Your task to perform on an android device: turn pop-ups off in chrome Image 0: 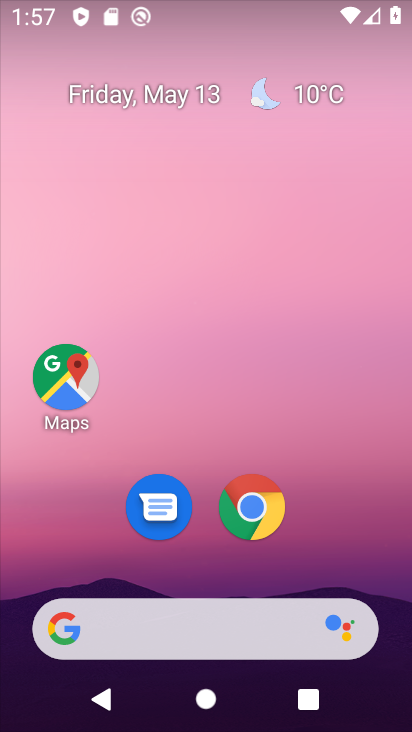
Step 0: drag from (337, 567) to (241, 55)
Your task to perform on an android device: turn pop-ups off in chrome Image 1: 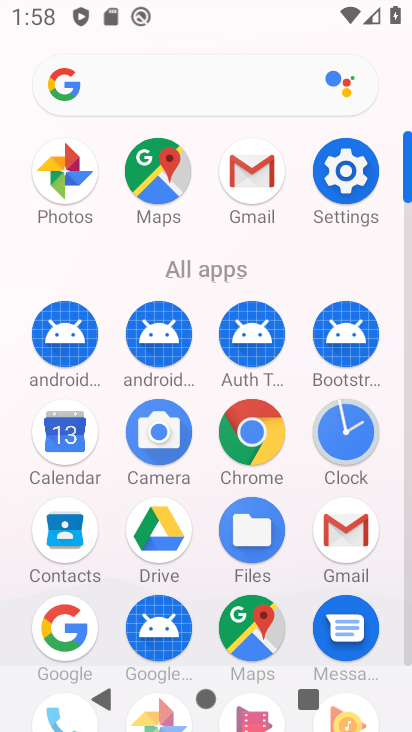
Step 1: click (246, 433)
Your task to perform on an android device: turn pop-ups off in chrome Image 2: 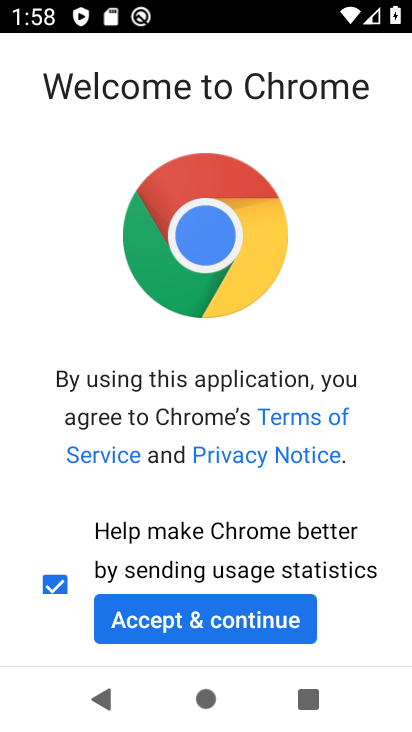
Step 2: click (217, 618)
Your task to perform on an android device: turn pop-ups off in chrome Image 3: 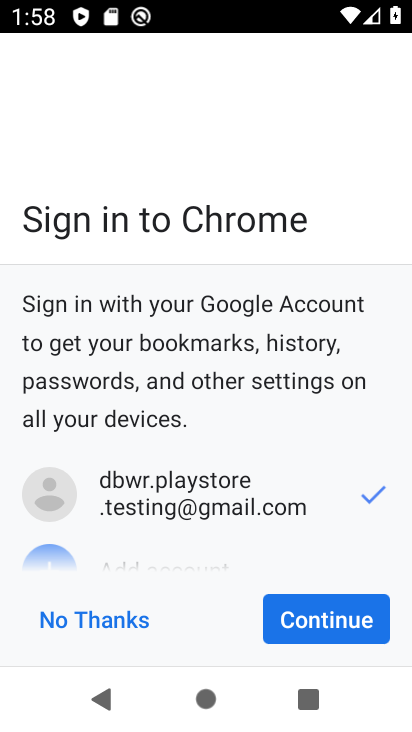
Step 3: click (313, 635)
Your task to perform on an android device: turn pop-ups off in chrome Image 4: 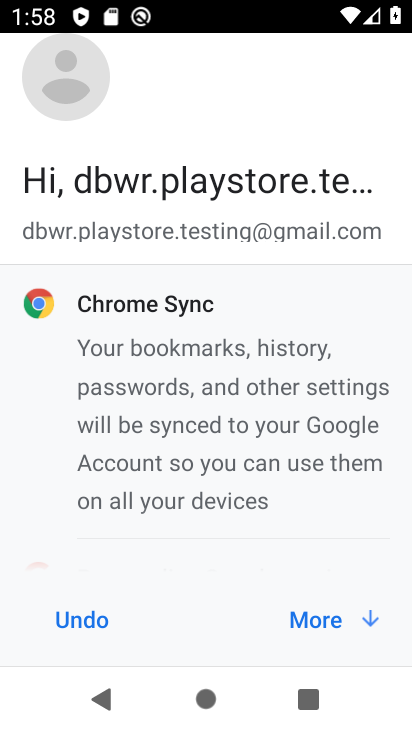
Step 4: click (313, 635)
Your task to perform on an android device: turn pop-ups off in chrome Image 5: 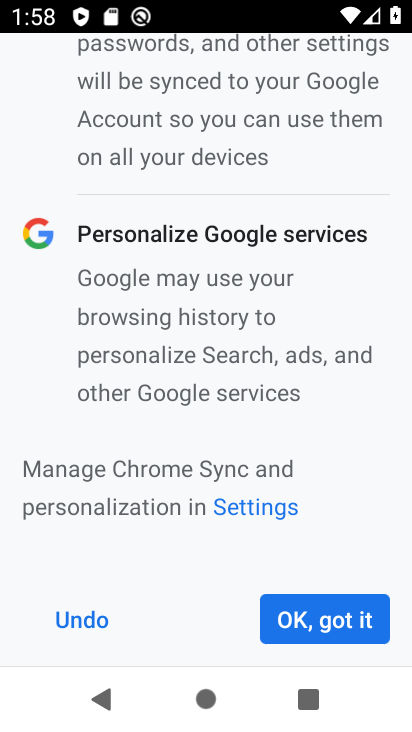
Step 5: click (313, 629)
Your task to perform on an android device: turn pop-ups off in chrome Image 6: 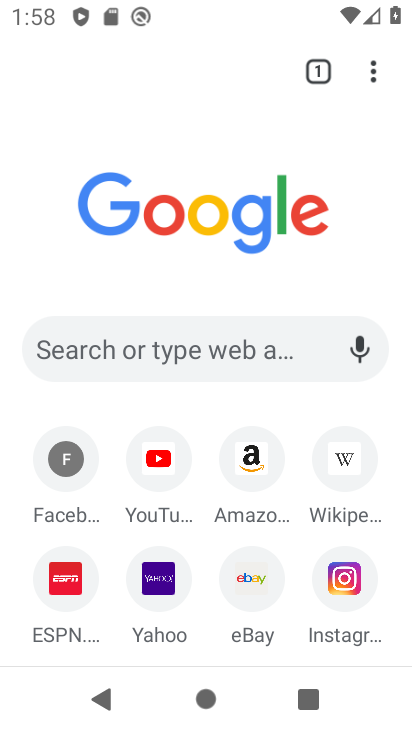
Step 6: drag from (366, 73) to (157, 501)
Your task to perform on an android device: turn pop-ups off in chrome Image 7: 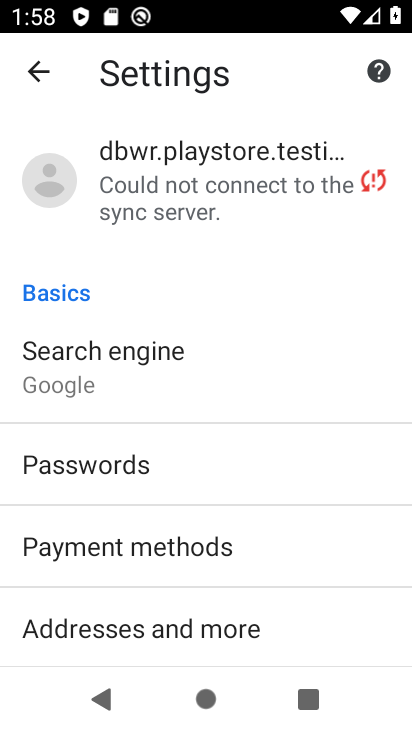
Step 7: drag from (119, 601) to (126, 262)
Your task to perform on an android device: turn pop-ups off in chrome Image 8: 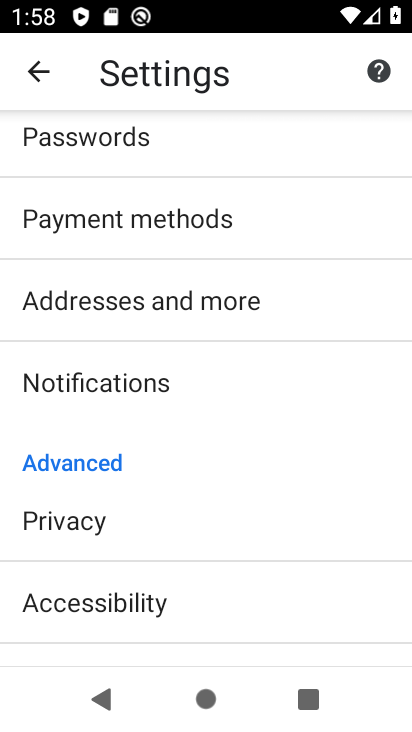
Step 8: drag from (123, 589) to (146, 128)
Your task to perform on an android device: turn pop-ups off in chrome Image 9: 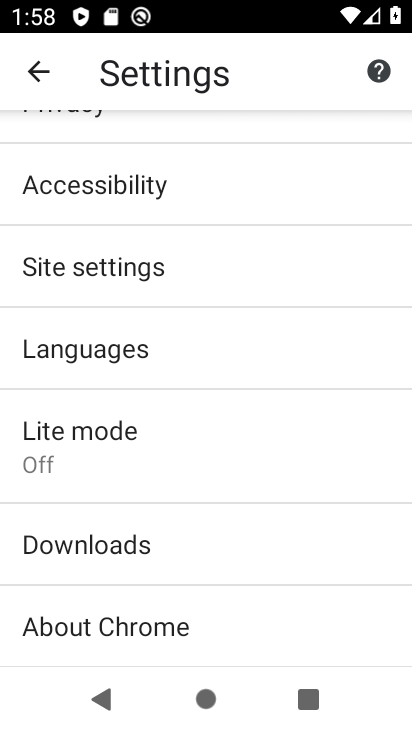
Step 9: click (127, 266)
Your task to perform on an android device: turn pop-ups off in chrome Image 10: 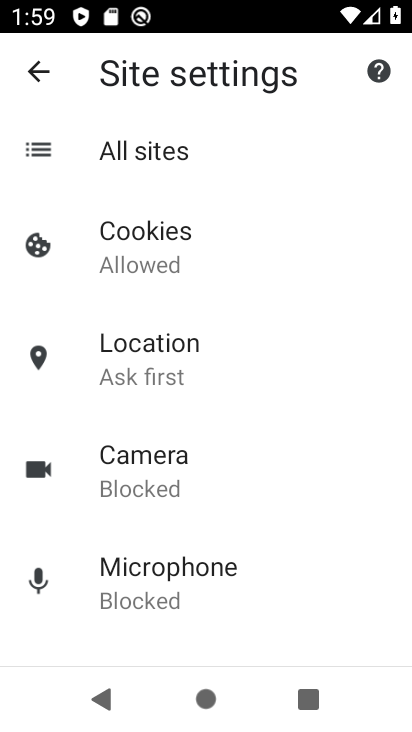
Step 10: drag from (148, 500) to (143, 135)
Your task to perform on an android device: turn pop-ups off in chrome Image 11: 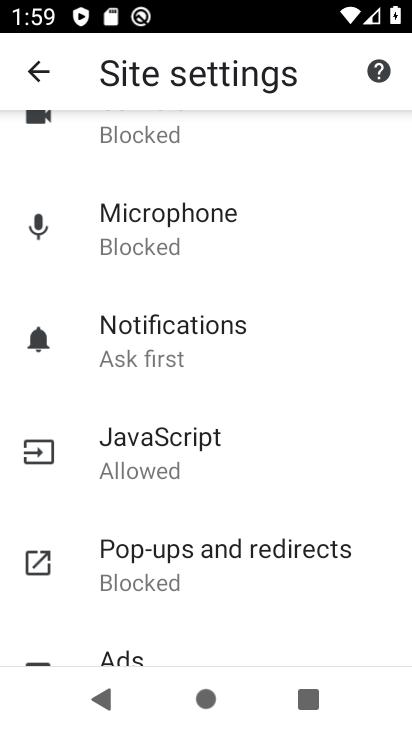
Step 11: drag from (182, 486) to (168, 281)
Your task to perform on an android device: turn pop-ups off in chrome Image 12: 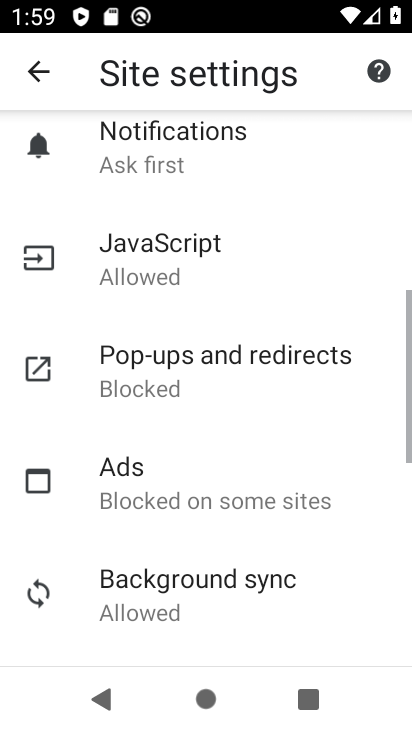
Step 12: click (134, 354)
Your task to perform on an android device: turn pop-ups off in chrome Image 13: 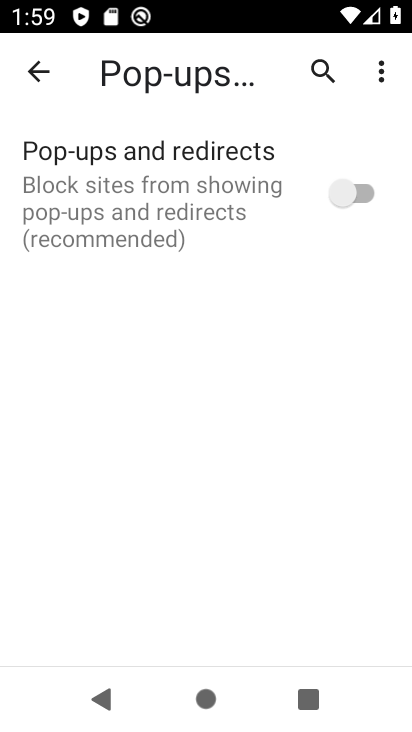
Step 13: task complete